Your task to perform on an android device: Go to calendar. Show me events next week Image 0: 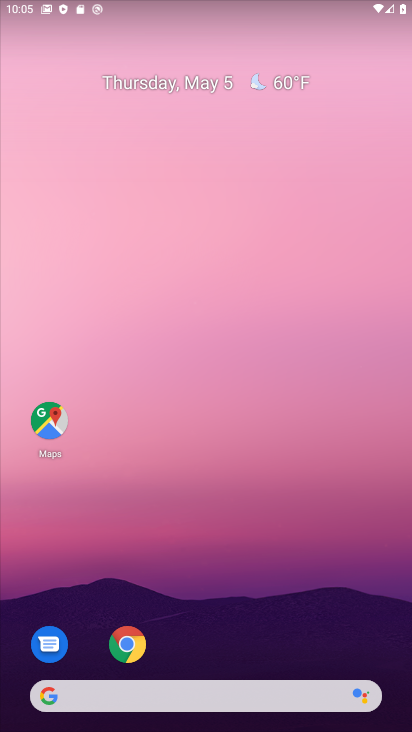
Step 0: drag from (365, 638) to (378, 198)
Your task to perform on an android device: Go to calendar. Show me events next week Image 1: 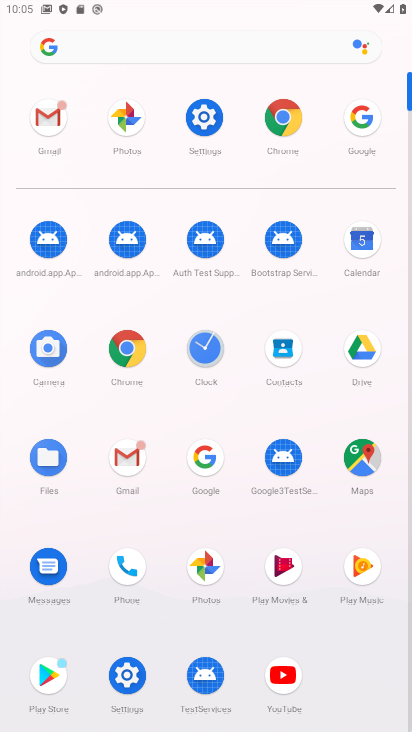
Step 1: click (358, 237)
Your task to perform on an android device: Go to calendar. Show me events next week Image 2: 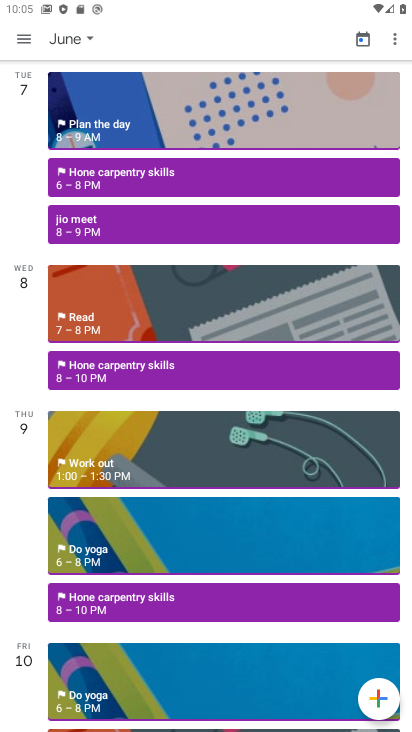
Step 2: click (71, 39)
Your task to perform on an android device: Go to calendar. Show me events next week Image 3: 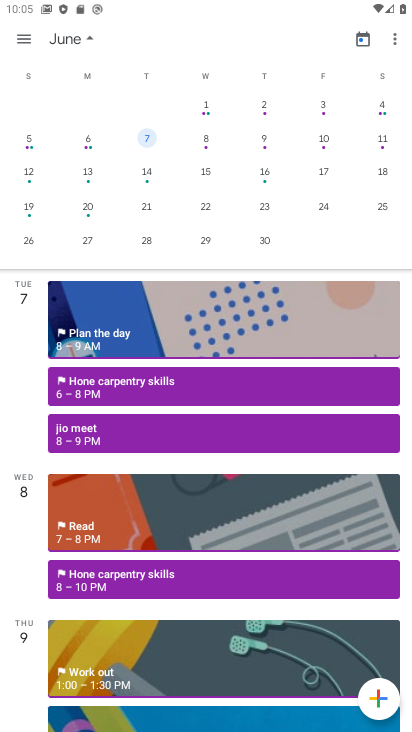
Step 3: drag from (107, 103) to (356, 81)
Your task to perform on an android device: Go to calendar. Show me events next week Image 4: 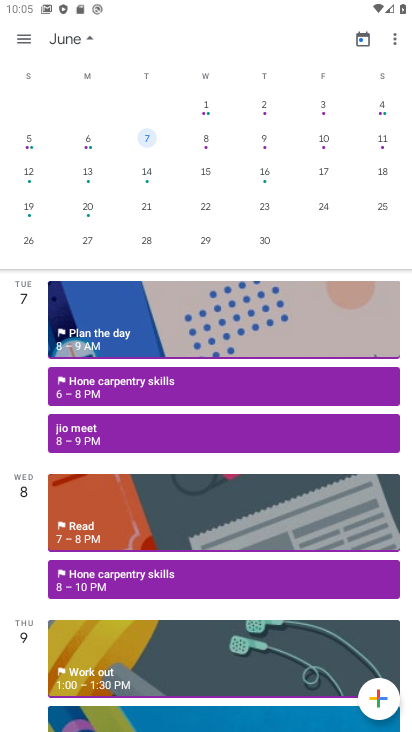
Step 4: drag from (83, 117) to (410, 112)
Your task to perform on an android device: Go to calendar. Show me events next week Image 5: 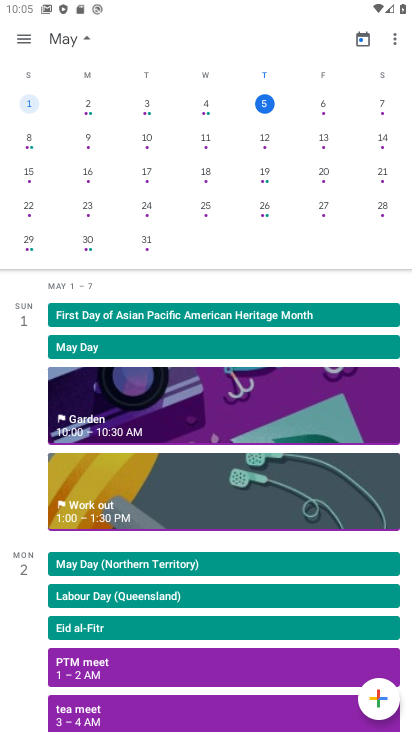
Step 5: click (24, 138)
Your task to perform on an android device: Go to calendar. Show me events next week Image 6: 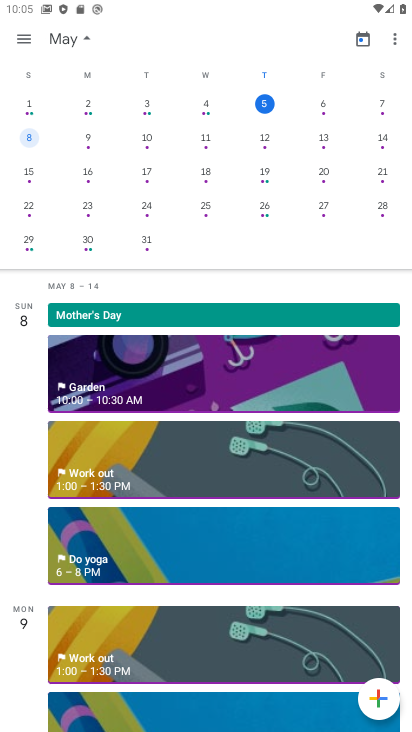
Step 6: task complete